Your task to perform on an android device: Open the Play Movies app and select the watchlist tab. Image 0: 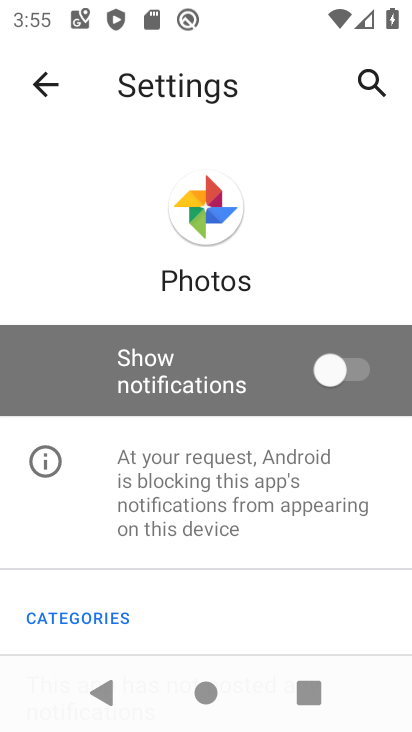
Step 0: press home button
Your task to perform on an android device: Open the Play Movies app and select the watchlist tab. Image 1: 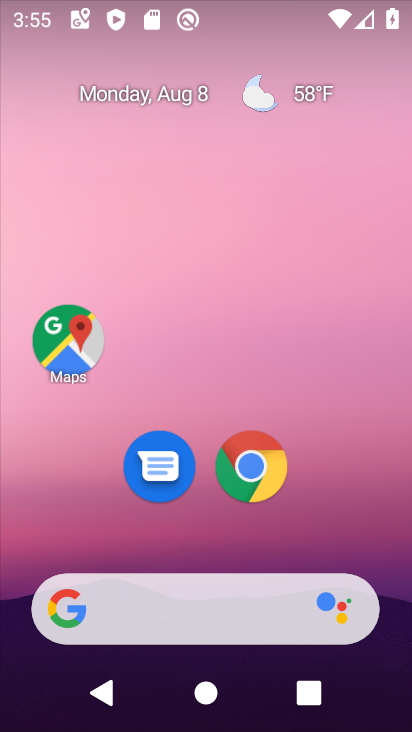
Step 1: drag from (162, 500) to (213, 2)
Your task to perform on an android device: Open the Play Movies app and select the watchlist tab. Image 2: 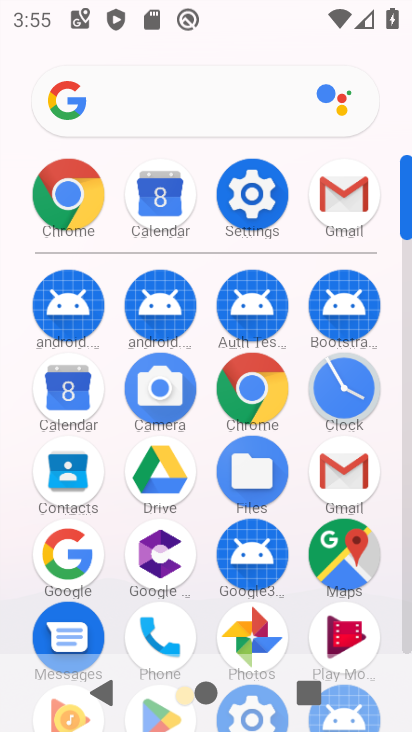
Step 2: drag from (198, 606) to (230, 273)
Your task to perform on an android device: Open the Play Movies app and select the watchlist tab. Image 3: 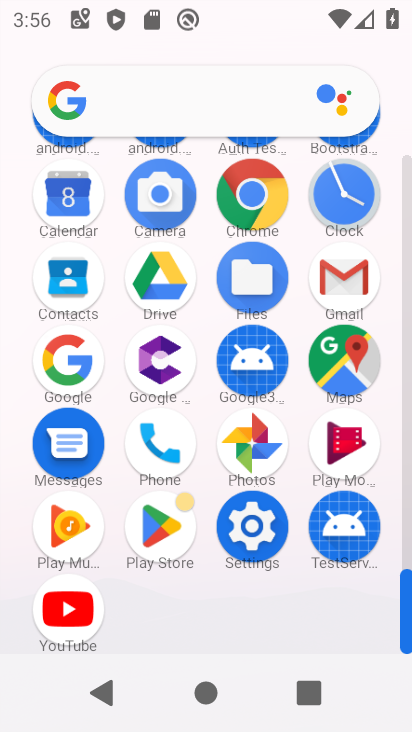
Step 3: drag from (288, 235) to (273, 568)
Your task to perform on an android device: Open the Play Movies app and select the watchlist tab. Image 4: 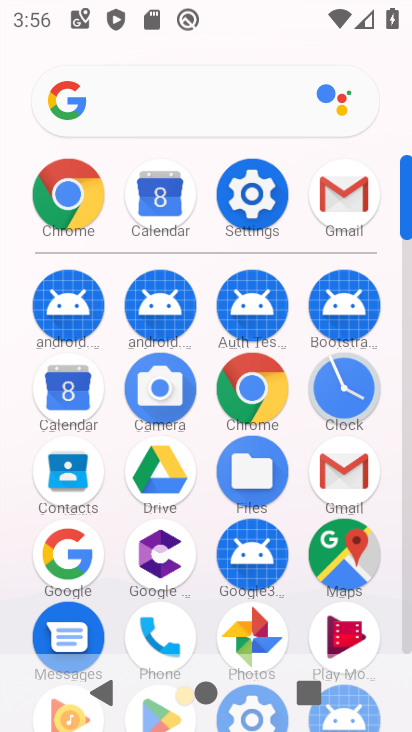
Step 4: drag from (116, 597) to (168, 306)
Your task to perform on an android device: Open the Play Movies app and select the watchlist tab. Image 5: 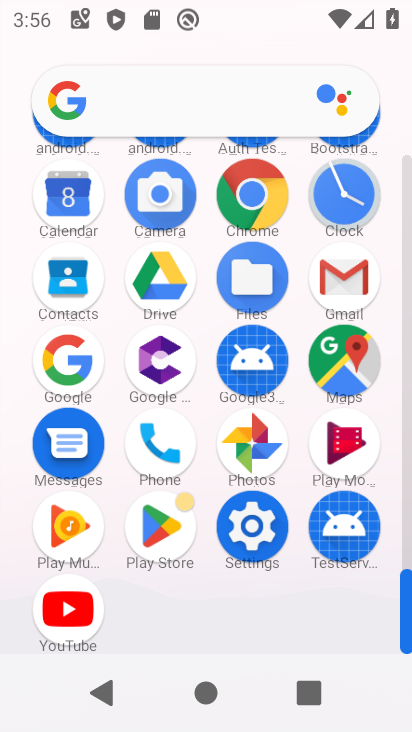
Step 5: click (333, 441)
Your task to perform on an android device: Open the Play Movies app and select the watchlist tab. Image 6: 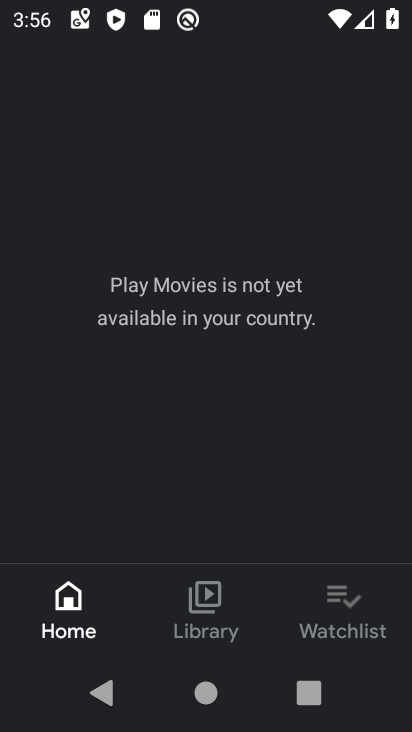
Step 6: click (333, 610)
Your task to perform on an android device: Open the Play Movies app and select the watchlist tab. Image 7: 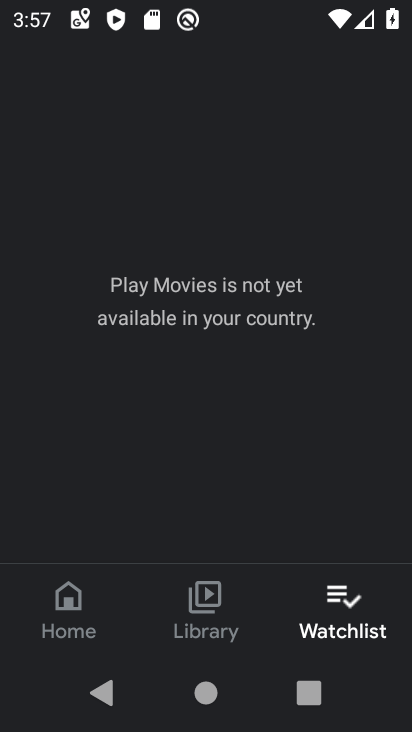
Step 7: task complete